Your task to perform on an android device: Search for Mexican restaurants on Maps Image 0: 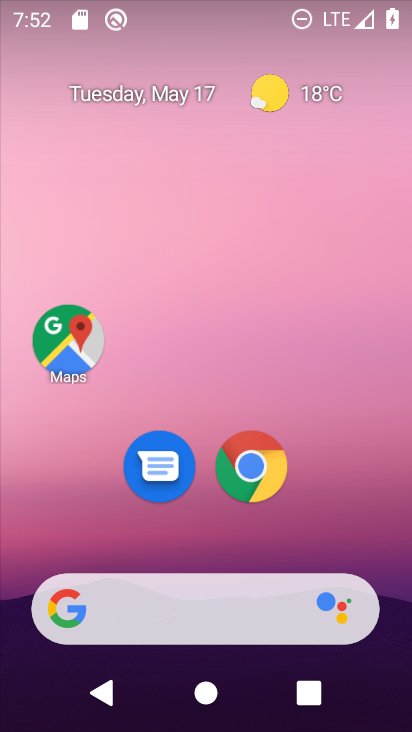
Step 0: click (62, 354)
Your task to perform on an android device: Search for Mexican restaurants on Maps Image 1: 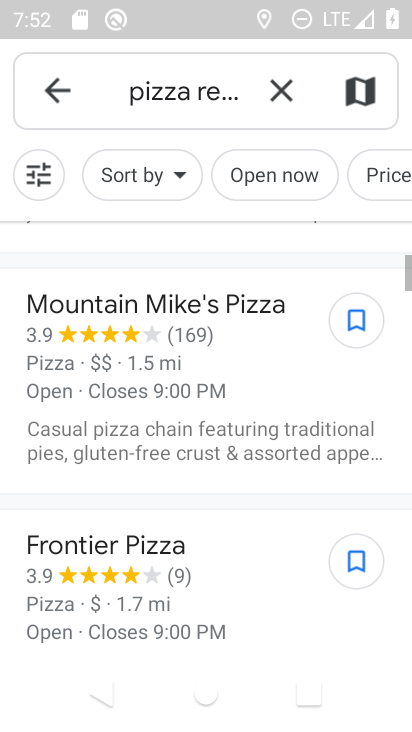
Step 1: click (278, 87)
Your task to perform on an android device: Search for Mexican restaurants on Maps Image 2: 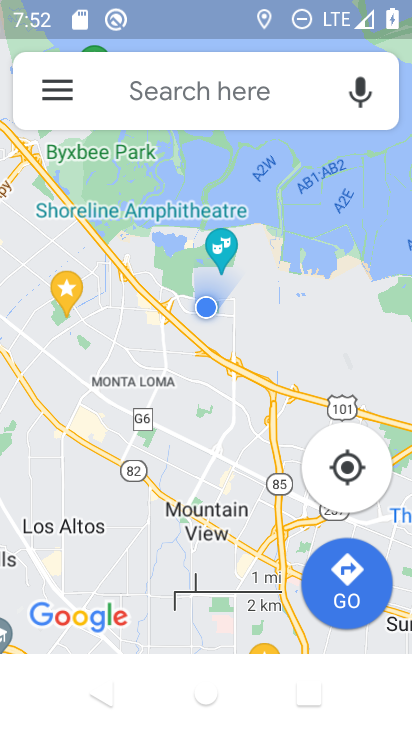
Step 2: click (199, 94)
Your task to perform on an android device: Search for Mexican restaurants on Maps Image 3: 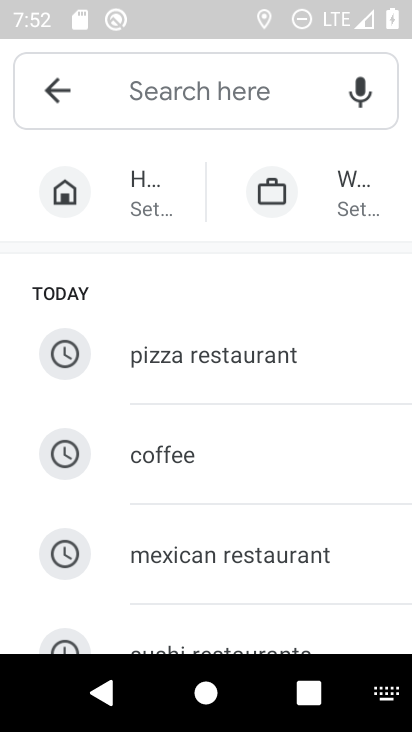
Step 3: click (233, 554)
Your task to perform on an android device: Search for Mexican restaurants on Maps Image 4: 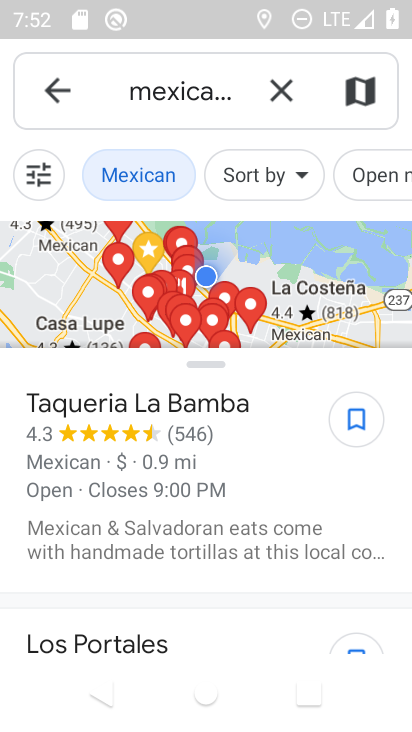
Step 4: task complete